Your task to perform on an android device: Go to Reddit.com Image 0: 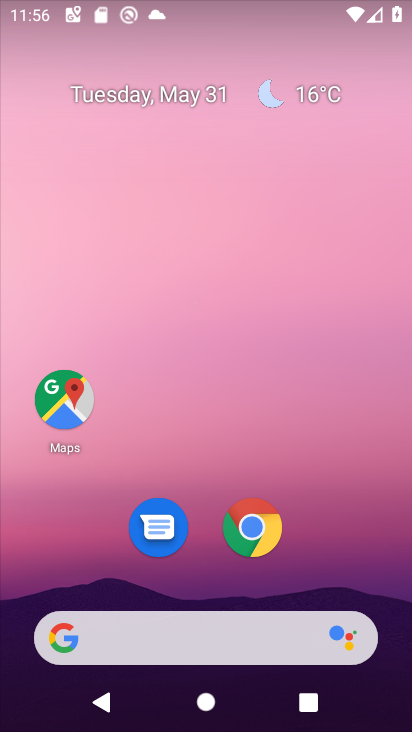
Step 0: click (256, 536)
Your task to perform on an android device: Go to Reddit.com Image 1: 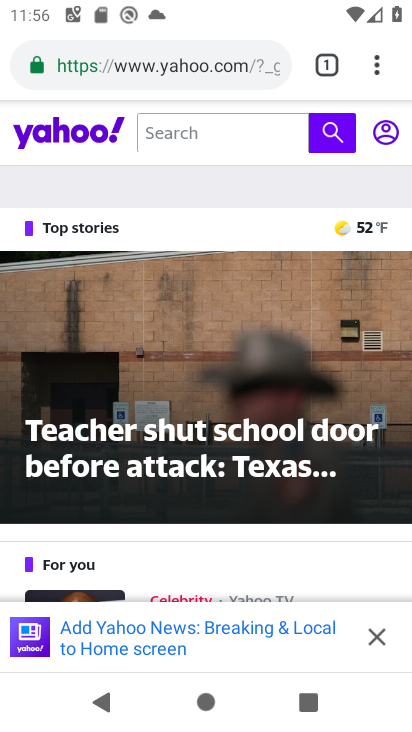
Step 1: click (144, 69)
Your task to perform on an android device: Go to Reddit.com Image 2: 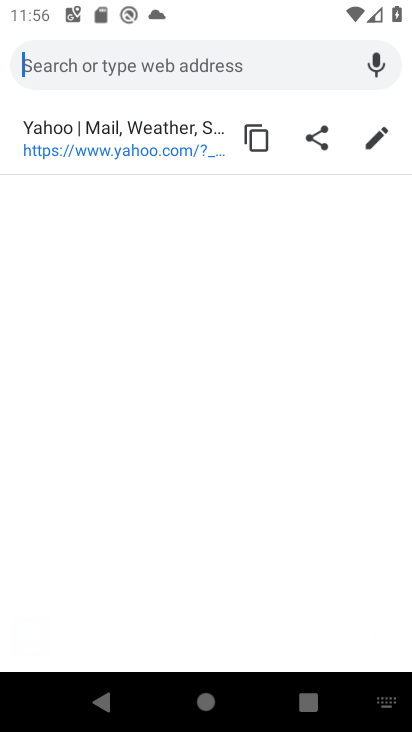
Step 2: type "reddit.com"
Your task to perform on an android device: Go to Reddit.com Image 3: 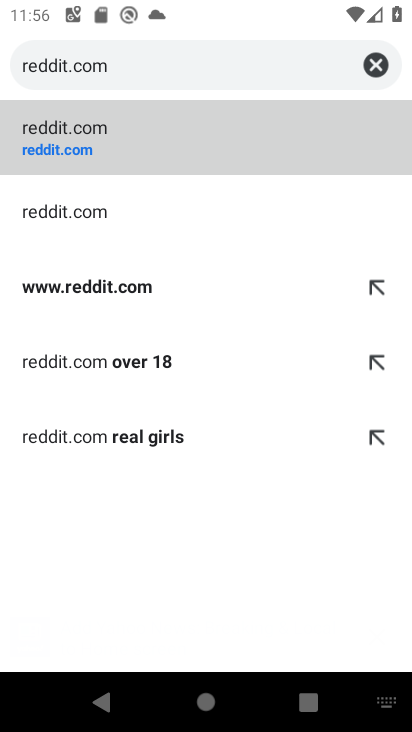
Step 3: click (60, 148)
Your task to perform on an android device: Go to Reddit.com Image 4: 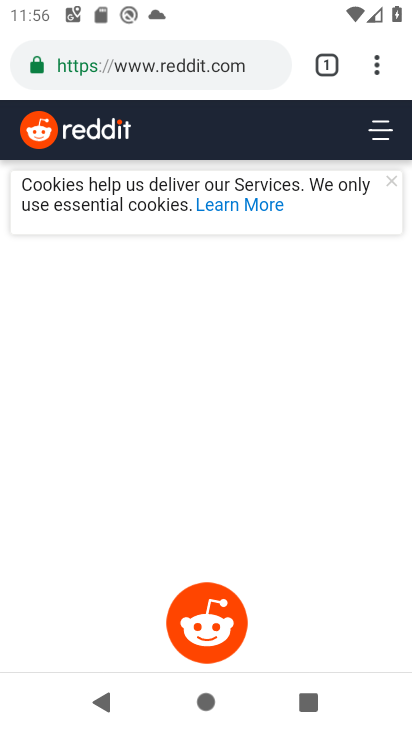
Step 4: task complete